Your task to perform on an android device: Check the news Image 0: 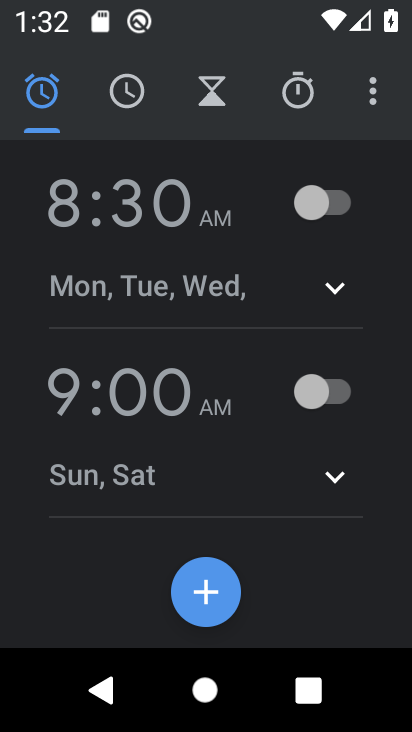
Step 0: press home button
Your task to perform on an android device: Check the news Image 1: 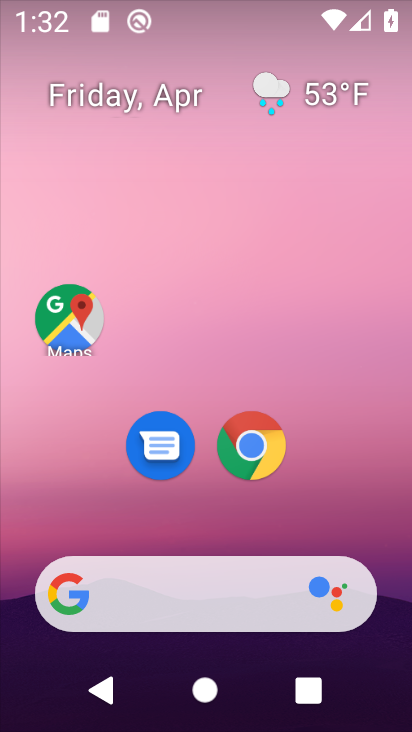
Step 1: task complete